Your task to perform on an android device: Clear the cart on bestbuy.com. Add beats solo 3 to the cart on bestbuy.com, then select checkout. Image 0: 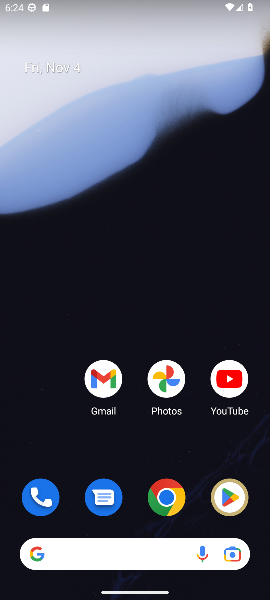
Step 0: click (168, 500)
Your task to perform on an android device: Clear the cart on bestbuy.com. Add beats solo 3 to the cart on bestbuy.com, then select checkout. Image 1: 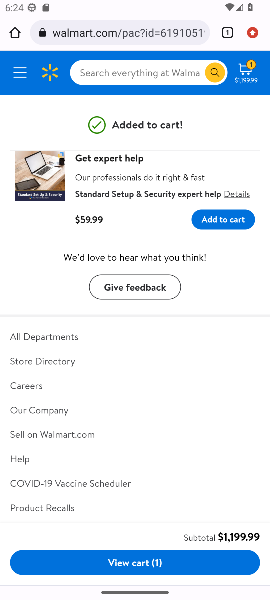
Step 1: click (122, 34)
Your task to perform on an android device: Clear the cart on bestbuy.com. Add beats solo 3 to the cart on bestbuy.com, then select checkout. Image 2: 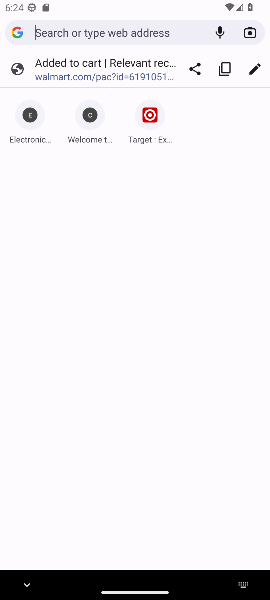
Step 2: type "bestbuy.com"
Your task to perform on an android device: Clear the cart on bestbuy.com. Add beats solo 3 to the cart on bestbuy.com, then select checkout. Image 3: 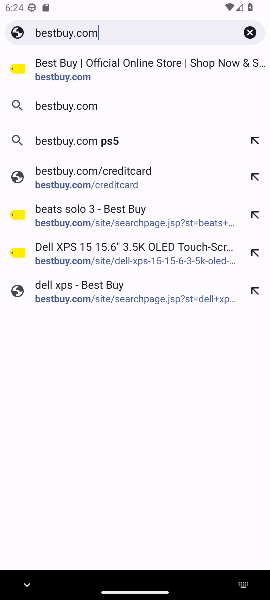
Step 3: click (56, 105)
Your task to perform on an android device: Clear the cart on bestbuy.com. Add beats solo 3 to the cart on bestbuy.com, then select checkout. Image 4: 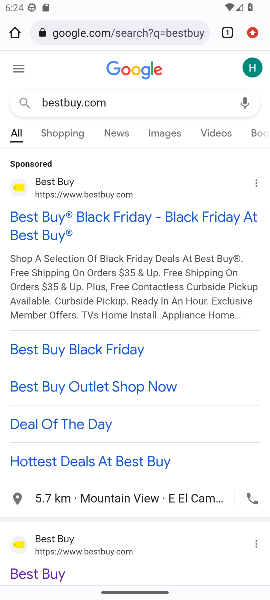
Step 4: drag from (115, 515) to (153, 394)
Your task to perform on an android device: Clear the cart on bestbuy.com. Add beats solo 3 to the cart on bestbuy.com, then select checkout. Image 5: 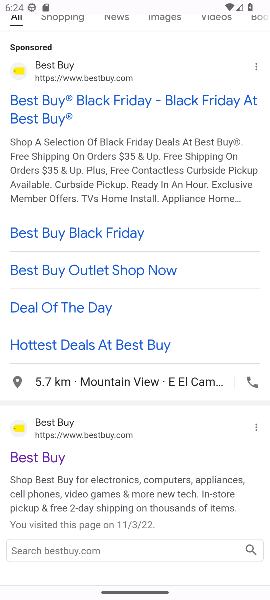
Step 5: click (40, 454)
Your task to perform on an android device: Clear the cart on bestbuy.com. Add beats solo 3 to the cart on bestbuy.com, then select checkout. Image 6: 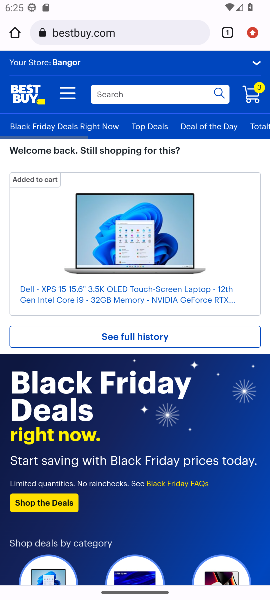
Step 6: click (257, 90)
Your task to perform on an android device: Clear the cart on bestbuy.com. Add beats solo 3 to the cart on bestbuy.com, then select checkout. Image 7: 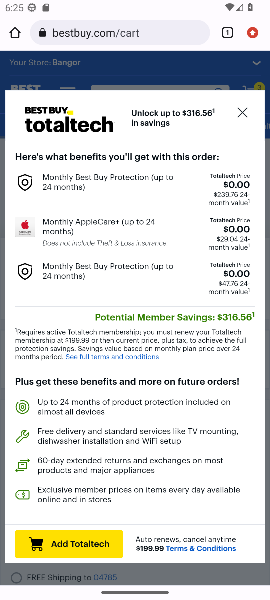
Step 7: click (246, 113)
Your task to perform on an android device: Clear the cart on bestbuy.com. Add beats solo 3 to the cart on bestbuy.com, then select checkout. Image 8: 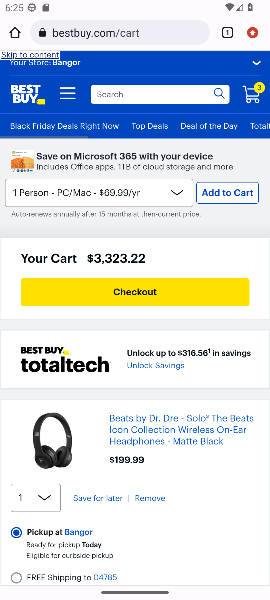
Step 8: click (154, 498)
Your task to perform on an android device: Clear the cart on bestbuy.com. Add beats solo 3 to the cart on bestbuy.com, then select checkout. Image 9: 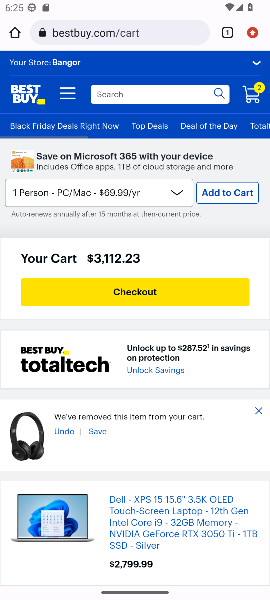
Step 9: drag from (154, 498) to (164, 280)
Your task to perform on an android device: Clear the cart on bestbuy.com. Add beats solo 3 to the cart on bestbuy.com, then select checkout. Image 10: 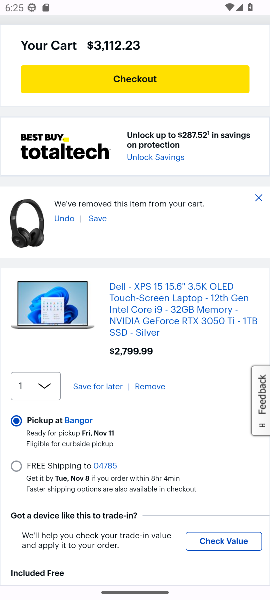
Step 10: click (147, 390)
Your task to perform on an android device: Clear the cart on bestbuy.com. Add beats solo 3 to the cart on bestbuy.com, then select checkout. Image 11: 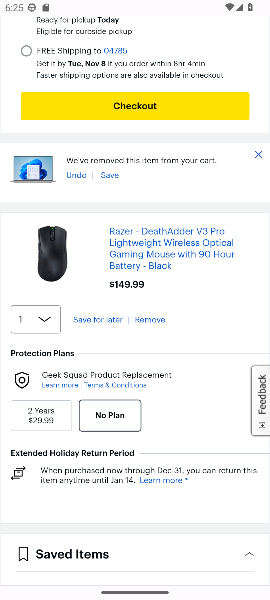
Step 11: click (150, 320)
Your task to perform on an android device: Clear the cart on bestbuy.com. Add beats solo 3 to the cart on bestbuy.com, then select checkout. Image 12: 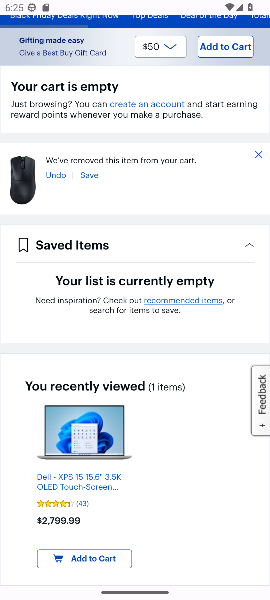
Step 12: drag from (162, 177) to (138, 523)
Your task to perform on an android device: Clear the cart on bestbuy.com. Add beats solo 3 to the cart on bestbuy.com, then select checkout. Image 13: 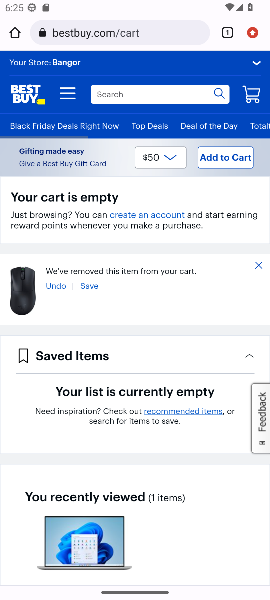
Step 13: drag from (153, 319) to (153, 430)
Your task to perform on an android device: Clear the cart on bestbuy.com. Add beats solo 3 to the cart on bestbuy.com, then select checkout. Image 14: 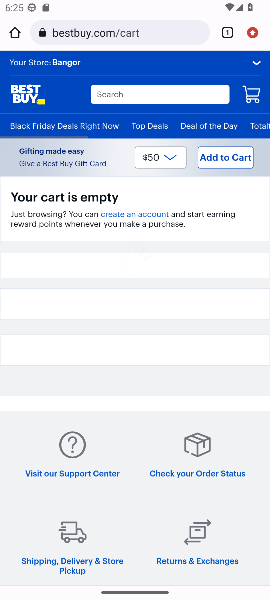
Step 14: click (154, 99)
Your task to perform on an android device: Clear the cart on bestbuy.com. Add beats solo 3 to the cart on bestbuy.com, then select checkout. Image 15: 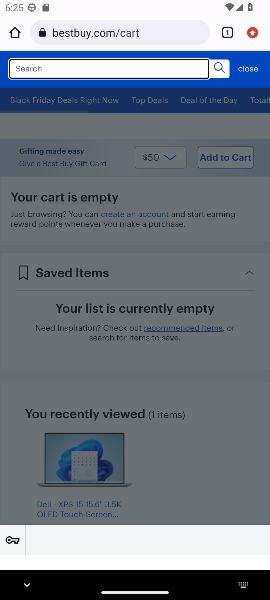
Step 15: type "beats solo 3"
Your task to perform on an android device: Clear the cart on bestbuy.com. Add beats solo 3 to the cart on bestbuy.com, then select checkout. Image 16: 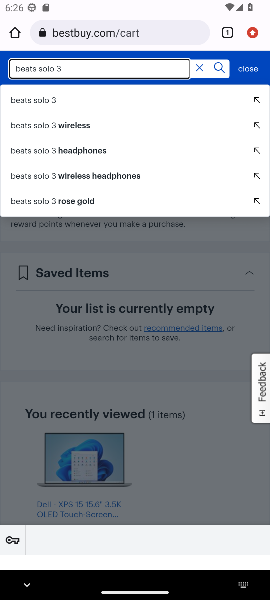
Step 16: click (31, 102)
Your task to perform on an android device: Clear the cart on bestbuy.com. Add beats solo 3 to the cart on bestbuy.com, then select checkout. Image 17: 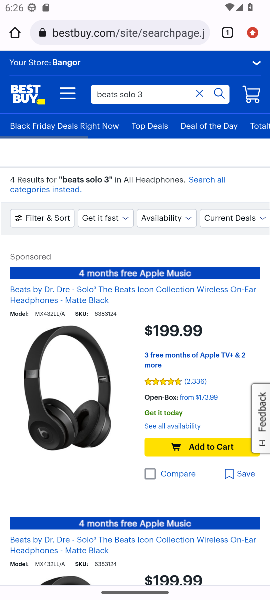
Step 17: click (195, 442)
Your task to perform on an android device: Clear the cart on bestbuy.com. Add beats solo 3 to the cart on bestbuy.com, then select checkout. Image 18: 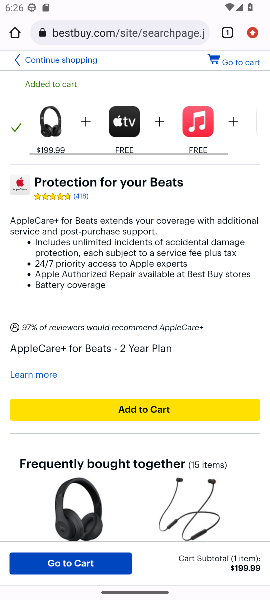
Step 18: click (242, 65)
Your task to perform on an android device: Clear the cart on bestbuy.com. Add beats solo 3 to the cart on bestbuy.com, then select checkout. Image 19: 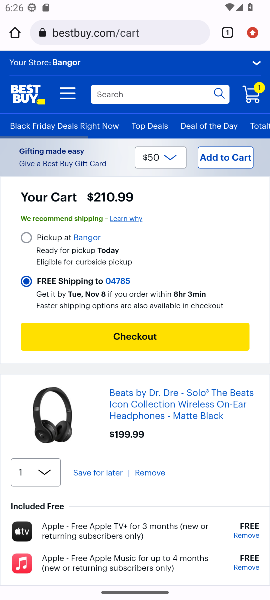
Step 19: click (125, 334)
Your task to perform on an android device: Clear the cart on bestbuy.com. Add beats solo 3 to the cart on bestbuy.com, then select checkout. Image 20: 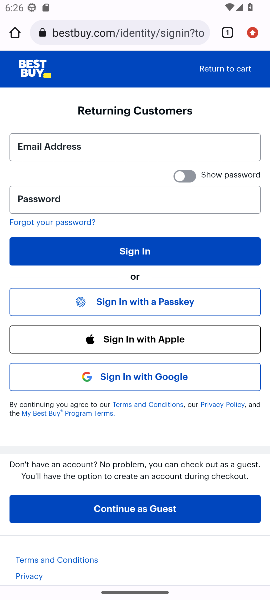
Step 20: task complete